Your task to perform on an android device: check the backup settings in the google photos Image 0: 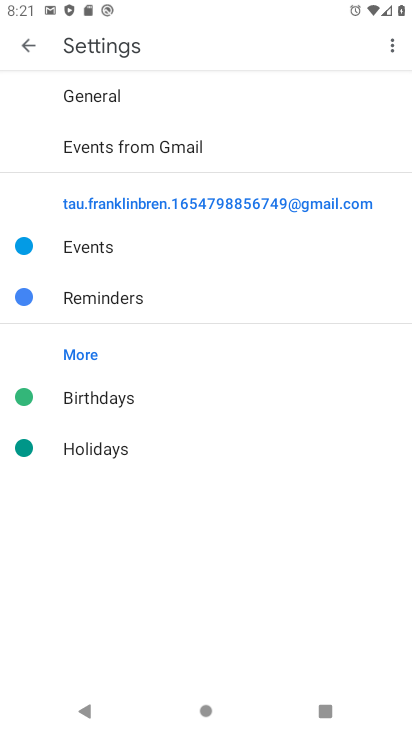
Step 0: press home button
Your task to perform on an android device: check the backup settings in the google photos Image 1: 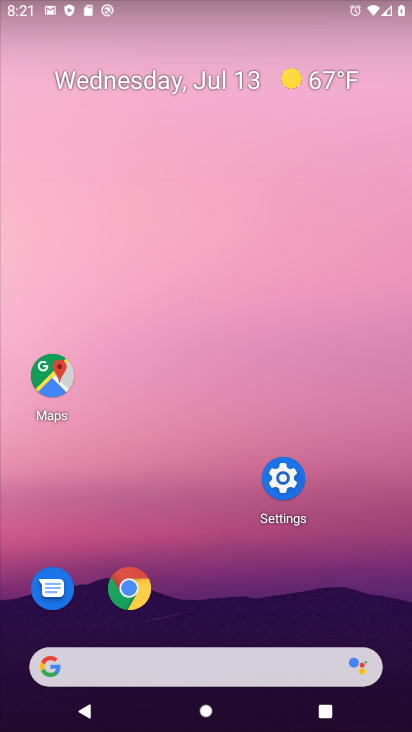
Step 1: drag from (277, 686) to (234, 168)
Your task to perform on an android device: check the backup settings in the google photos Image 2: 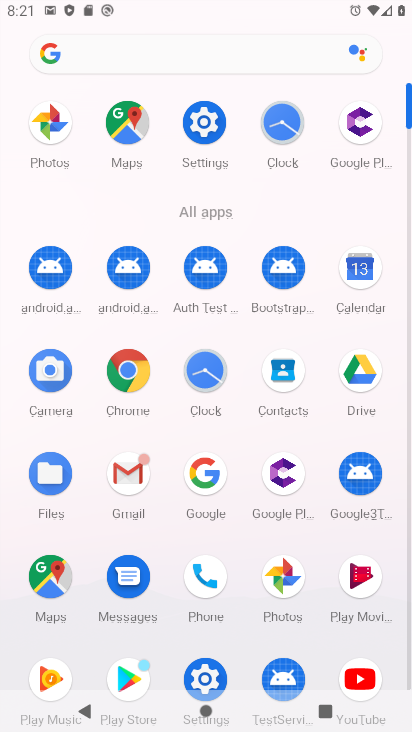
Step 2: click (279, 589)
Your task to perform on an android device: check the backup settings in the google photos Image 3: 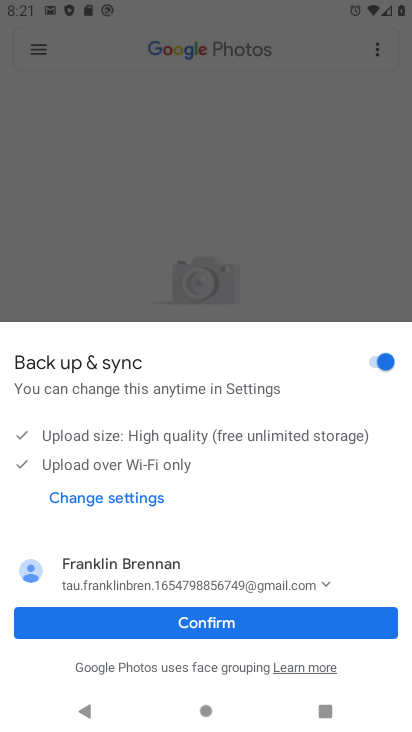
Step 3: click (251, 622)
Your task to perform on an android device: check the backup settings in the google photos Image 4: 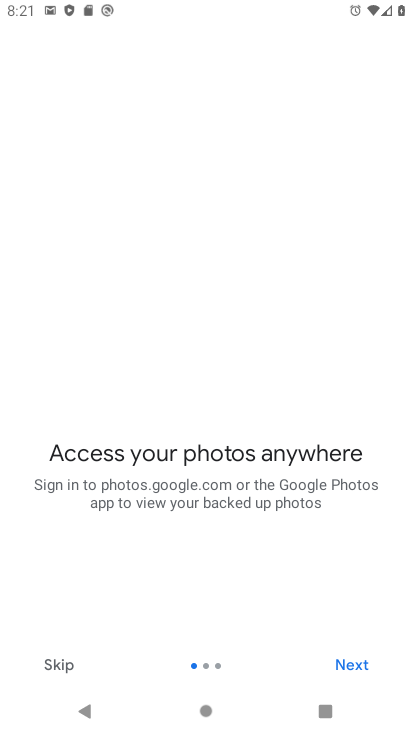
Step 4: click (361, 674)
Your task to perform on an android device: check the backup settings in the google photos Image 5: 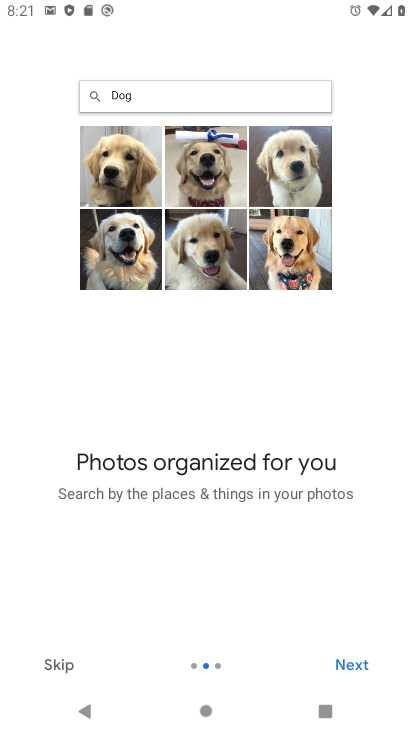
Step 5: click (350, 657)
Your task to perform on an android device: check the backup settings in the google photos Image 6: 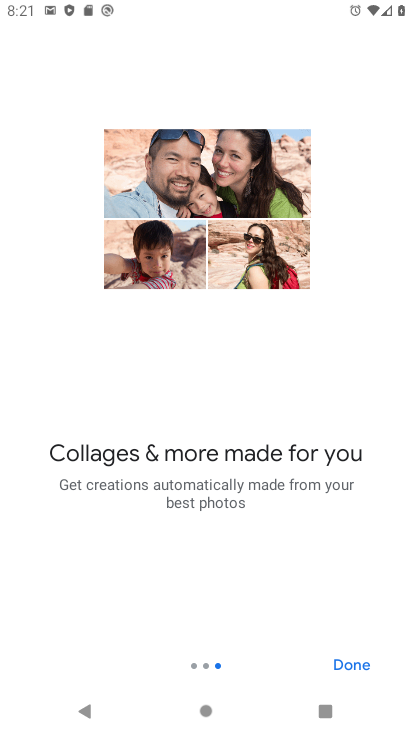
Step 6: click (350, 667)
Your task to perform on an android device: check the backup settings in the google photos Image 7: 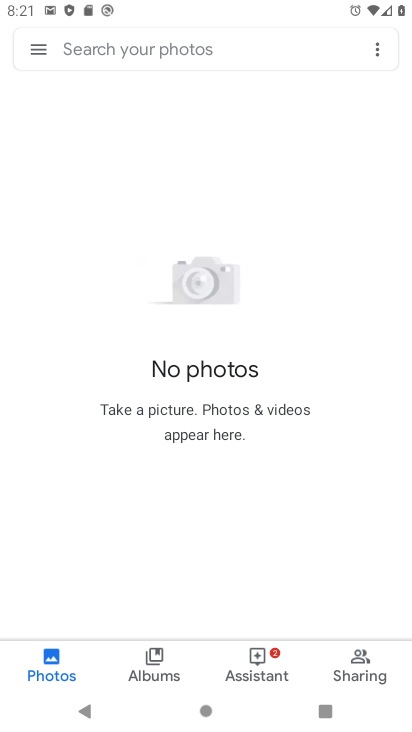
Step 7: click (40, 58)
Your task to perform on an android device: check the backup settings in the google photos Image 8: 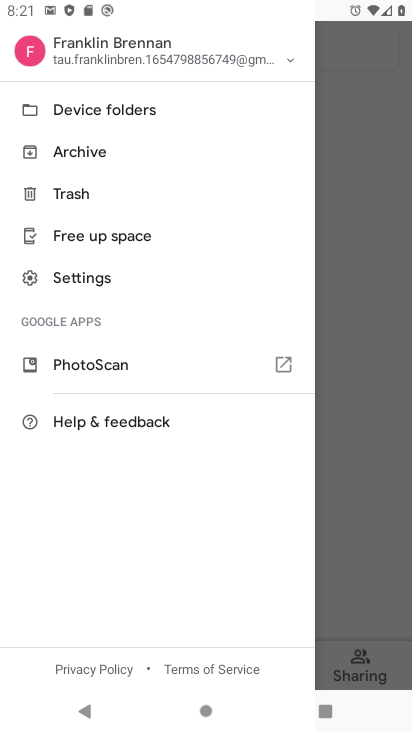
Step 8: click (76, 277)
Your task to perform on an android device: check the backup settings in the google photos Image 9: 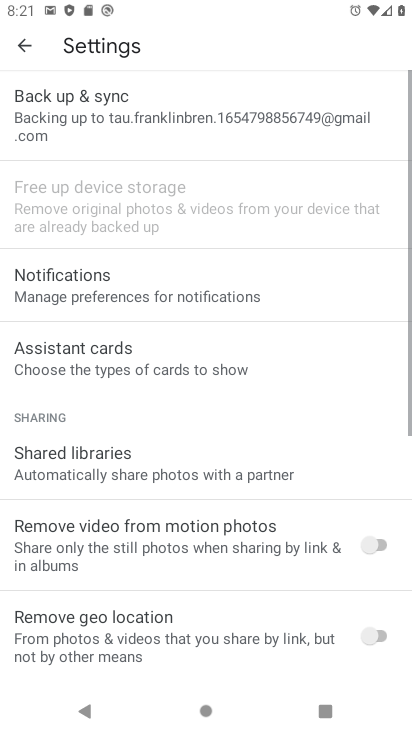
Step 9: click (66, 108)
Your task to perform on an android device: check the backup settings in the google photos Image 10: 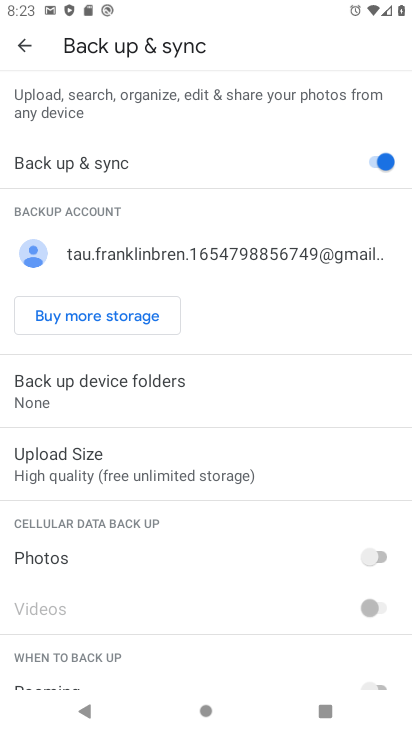
Step 10: task complete